Your task to perform on an android device: Open the stopwatch Image 0: 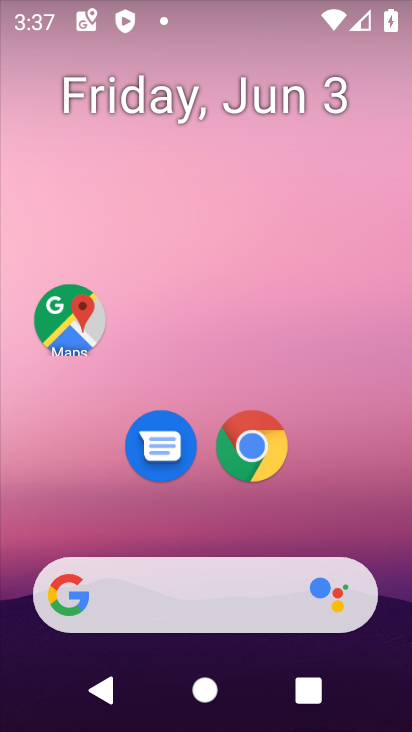
Step 0: task complete